Your task to perform on an android device: delete location history Image 0: 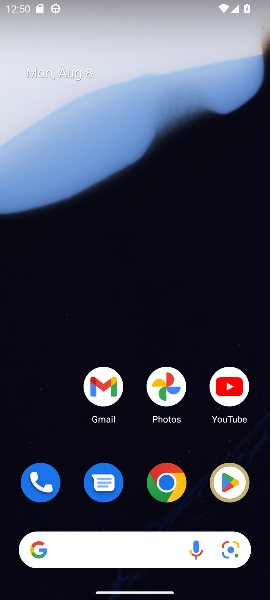
Step 0: drag from (151, 547) to (125, 57)
Your task to perform on an android device: delete location history Image 1: 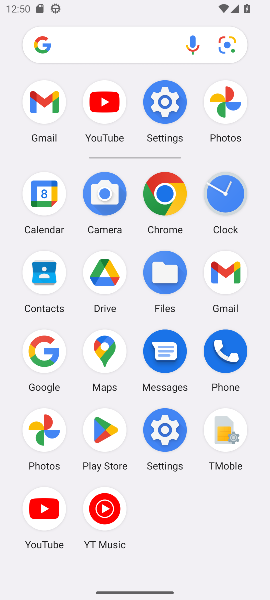
Step 1: click (118, 355)
Your task to perform on an android device: delete location history Image 2: 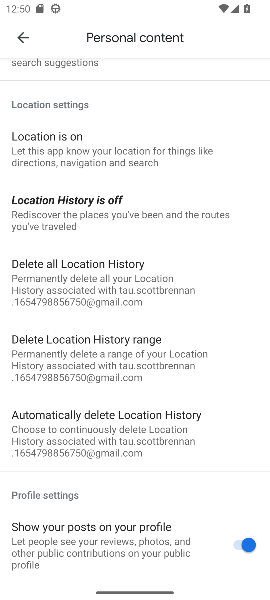
Step 2: click (135, 280)
Your task to perform on an android device: delete location history Image 3: 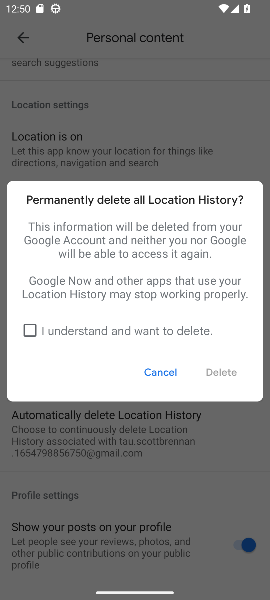
Step 3: click (30, 325)
Your task to perform on an android device: delete location history Image 4: 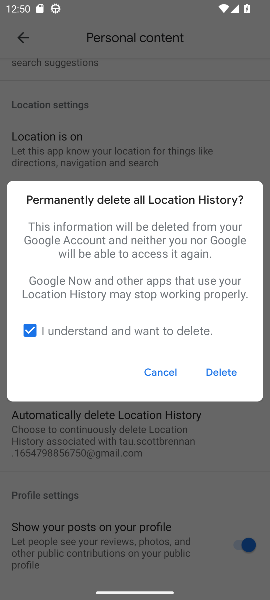
Step 4: click (212, 367)
Your task to perform on an android device: delete location history Image 5: 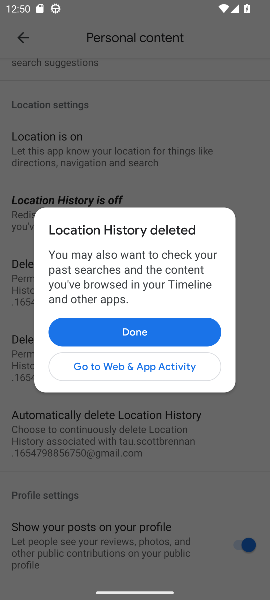
Step 5: click (155, 335)
Your task to perform on an android device: delete location history Image 6: 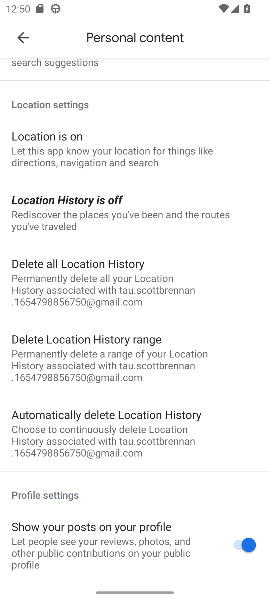
Step 6: task complete